Your task to perform on an android device: turn off airplane mode Image 0: 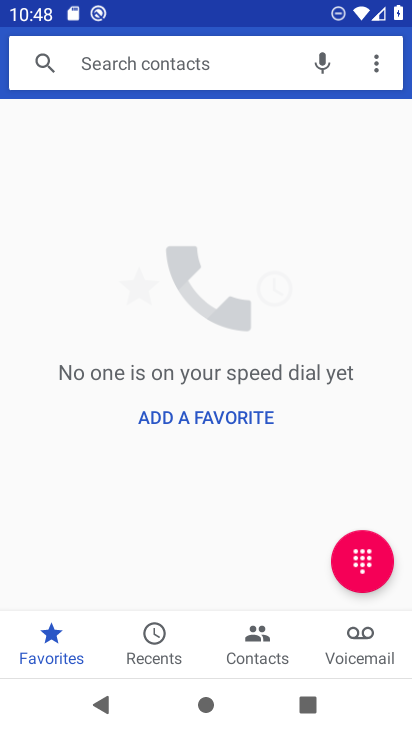
Step 0: press back button
Your task to perform on an android device: turn off airplane mode Image 1: 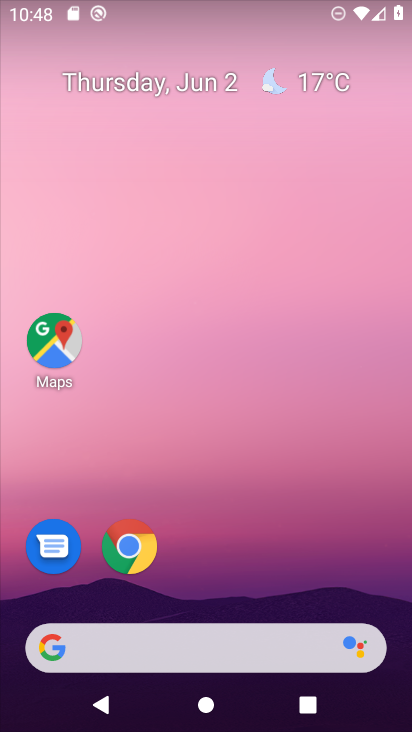
Step 1: drag from (281, 421) to (203, 38)
Your task to perform on an android device: turn off airplane mode Image 2: 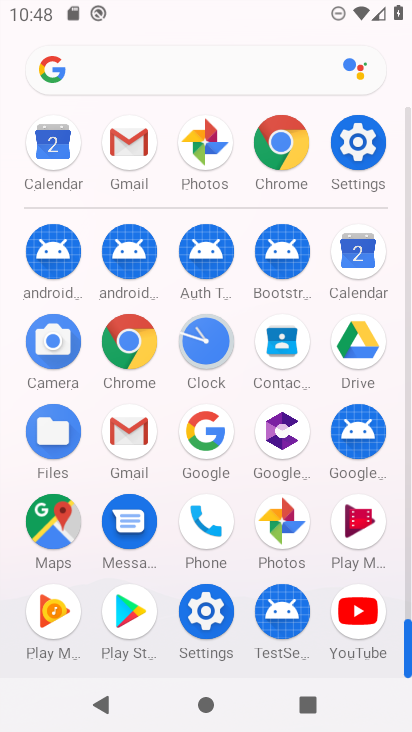
Step 2: click (204, 607)
Your task to perform on an android device: turn off airplane mode Image 3: 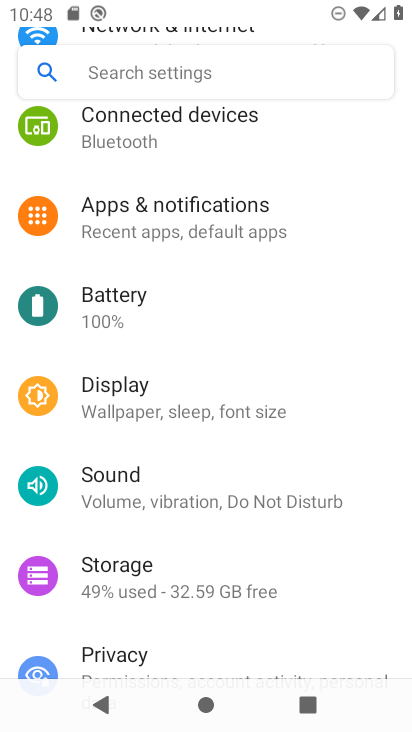
Step 3: drag from (235, 171) to (240, 567)
Your task to perform on an android device: turn off airplane mode Image 4: 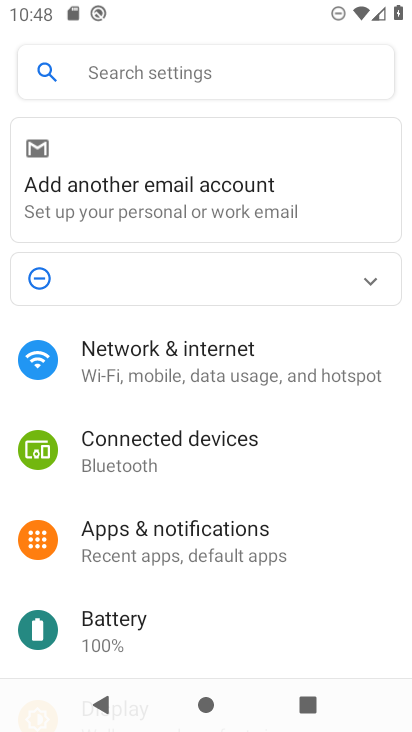
Step 4: click (231, 369)
Your task to perform on an android device: turn off airplane mode Image 5: 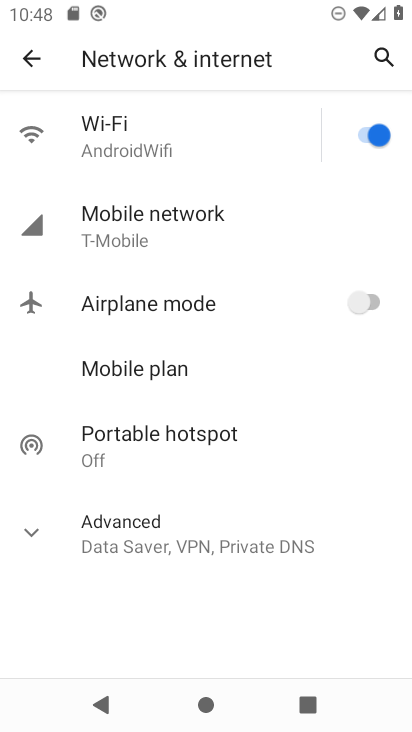
Step 5: click (37, 517)
Your task to perform on an android device: turn off airplane mode Image 6: 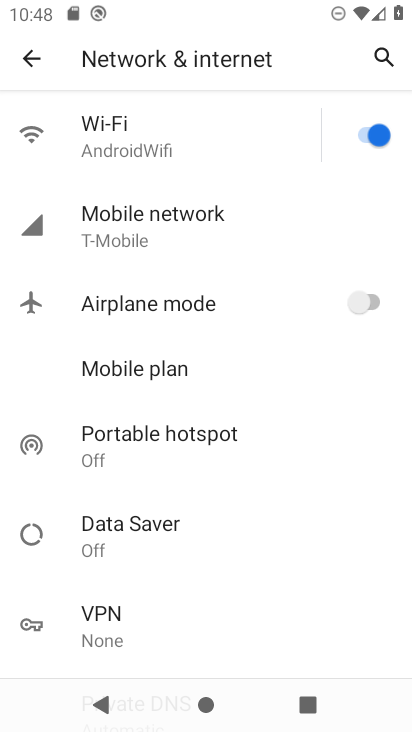
Step 6: task complete